Your task to perform on an android device: Open Maps and search for coffee Image 0: 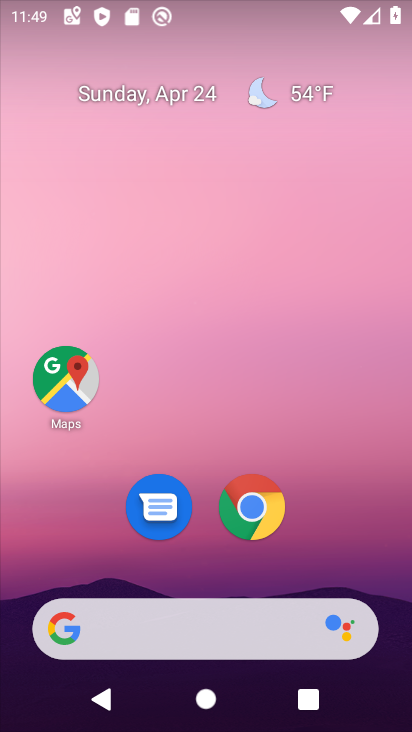
Step 0: drag from (307, 484) to (246, 12)
Your task to perform on an android device: Open Maps and search for coffee Image 1: 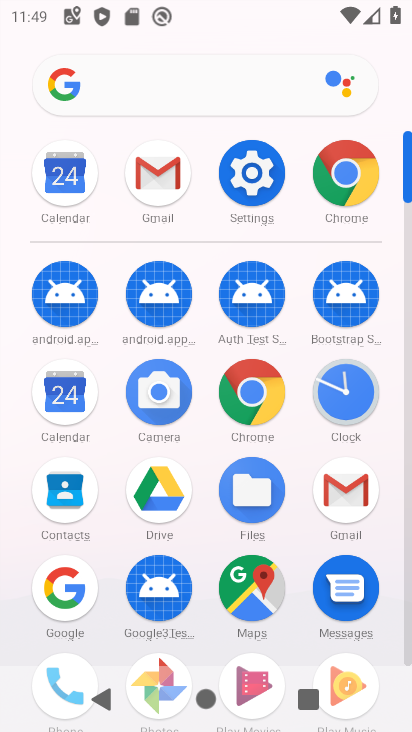
Step 1: drag from (14, 527) to (14, 313)
Your task to perform on an android device: Open Maps and search for coffee Image 2: 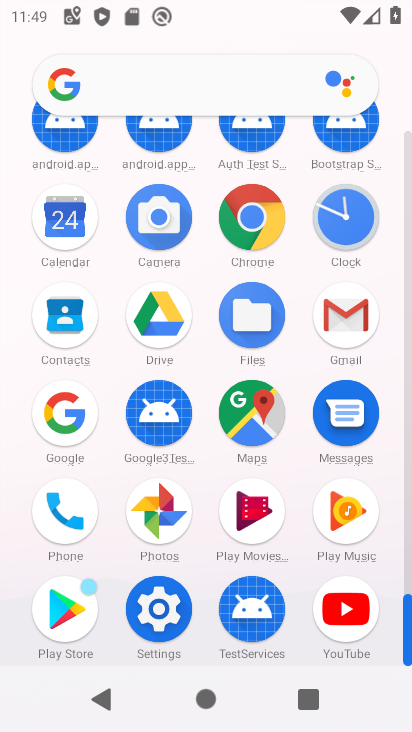
Step 2: drag from (6, 546) to (14, 208)
Your task to perform on an android device: Open Maps and search for coffee Image 3: 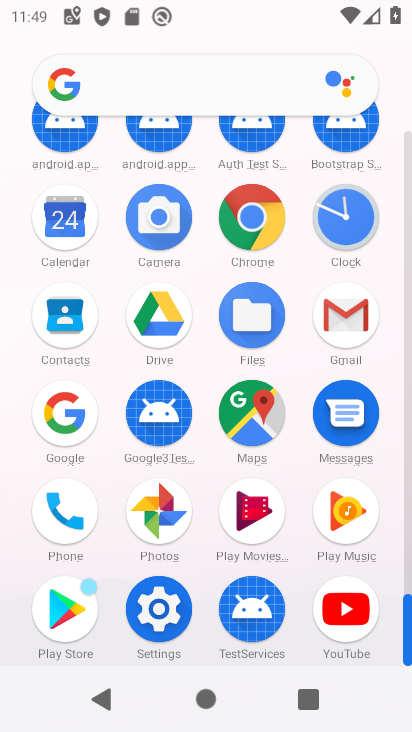
Step 3: click (249, 409)
Your task to perform on an android device: Open Maps and search for coffee Image 4: 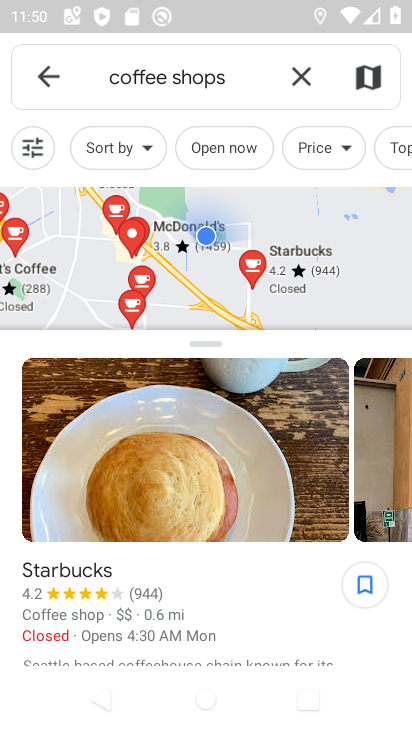
Step 4: task complete